Your task to perform on an android device: What's the weather today? Image 0: 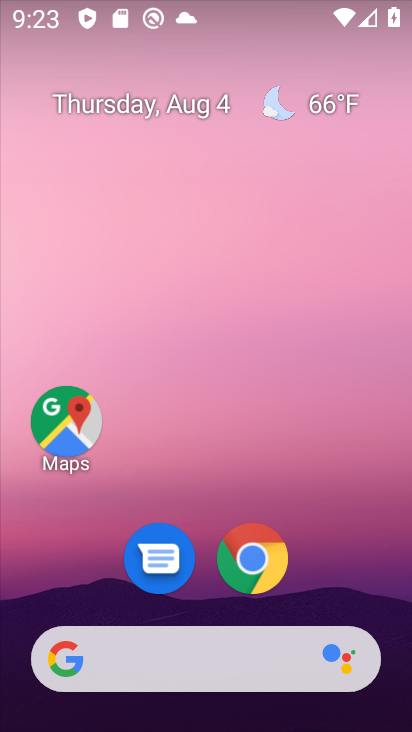
Step 0: click (324, 97)
Your task to perform on an android device: What's the weather today? Image 1: 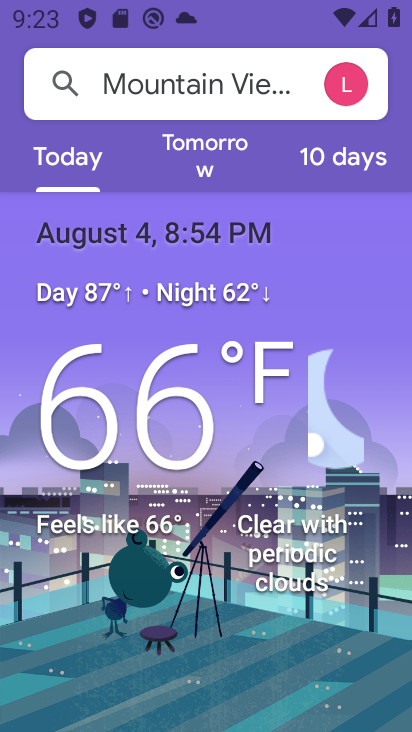
Step 1: task complete